Your task to perform on an android device: What is the news today? Image 0: 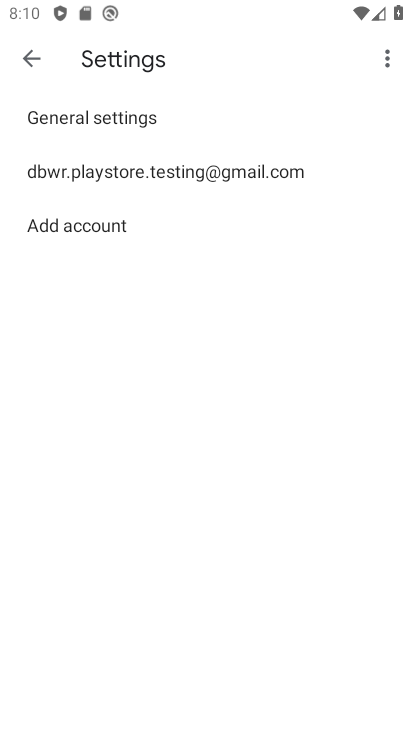
Step 0: press home button
Your task to perform on an android device: What is the news today? Image 1: 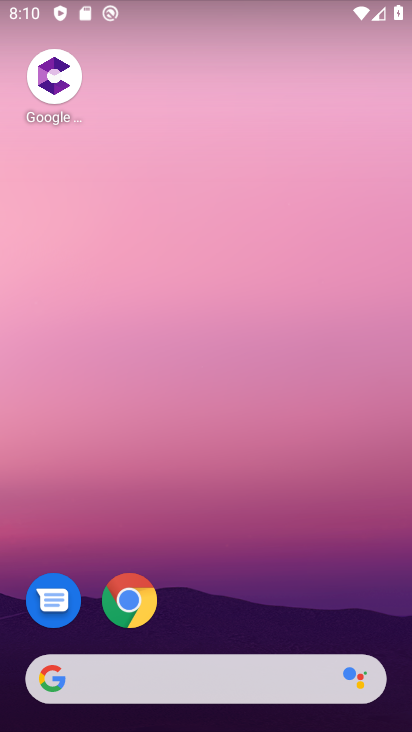
Step 1: drag from (255, 608) to (409, 23)
Your task to perform on an android device: What is the news today? Image 2: 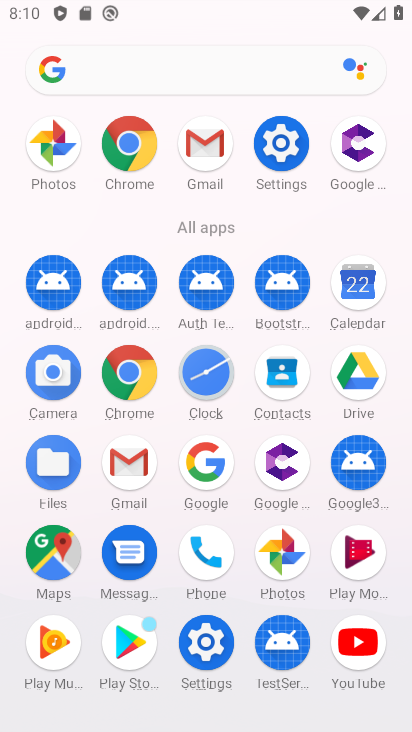
Step 2: click (218, 479)
Your task to perform on an android device: What is the news today? Image 3: 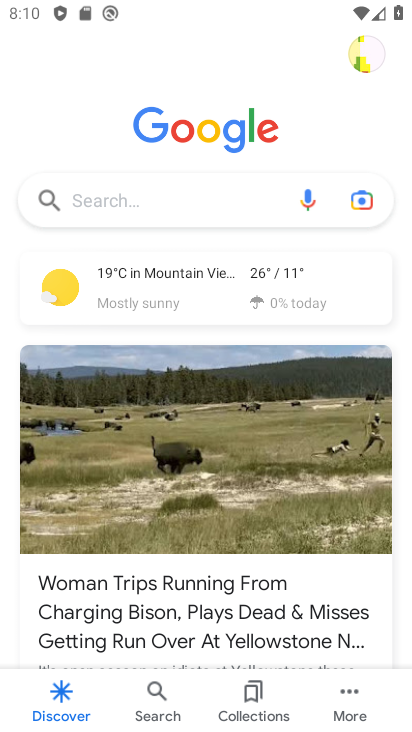
Step 3: click (185, 207)
Your task to perform on an android device: What is the news today? Image 4: 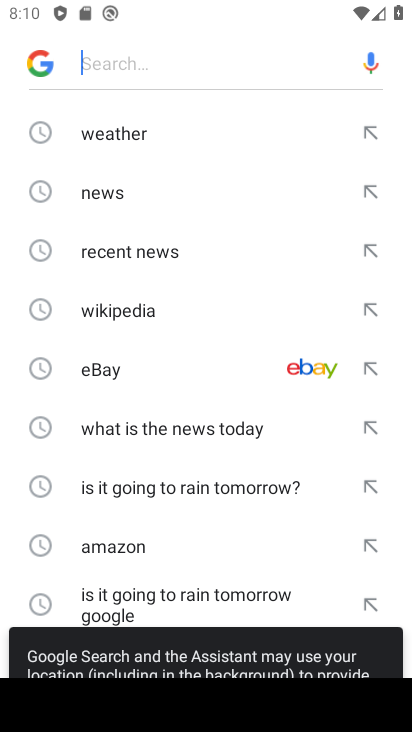
Step 4: click (145, 197)
Your task to perform on an android device: What is the news today? Image 5: 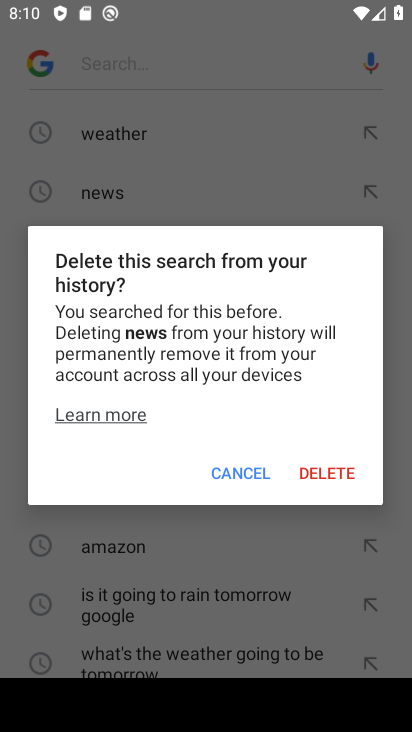
Step 5: click (383, 182)
Your task to perform on an android device: What is the news today? Image 6: 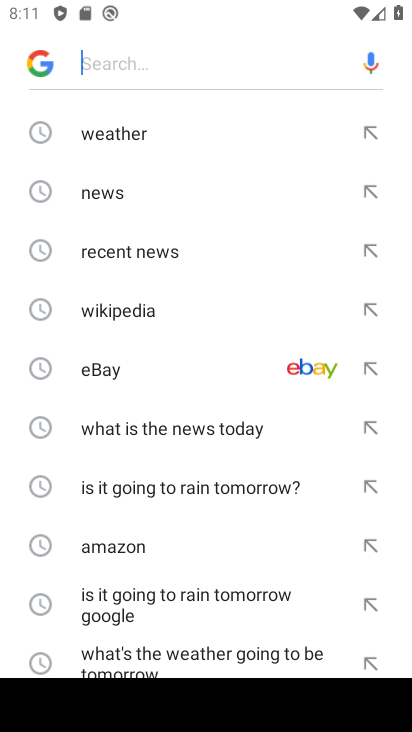
Step 6: click (369, 193)
Your task to perform on an android device: What is the news today? Image 7: 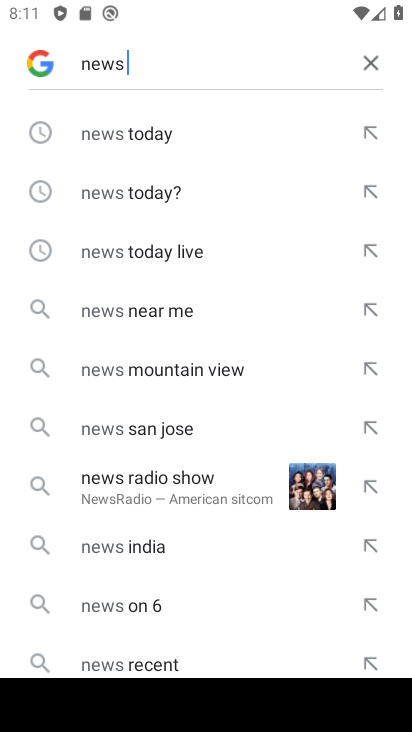
Step 7: task complete